Your task to perform on an android device: find photos in the google photos app Image 0: 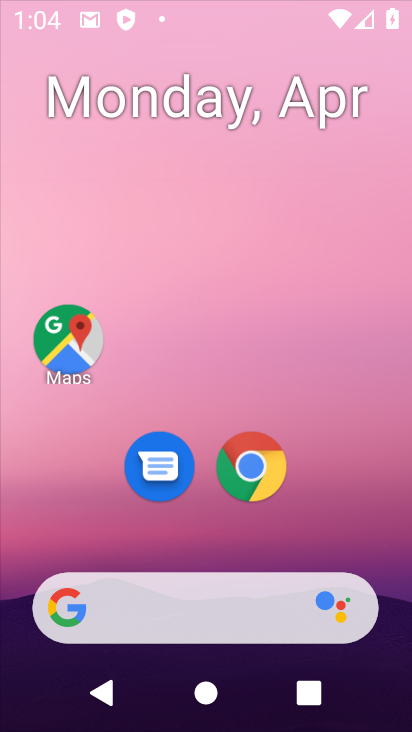
Step 0: click (267, 40)
Your task to perform on an android device: find photos in the google photos app Image 1: 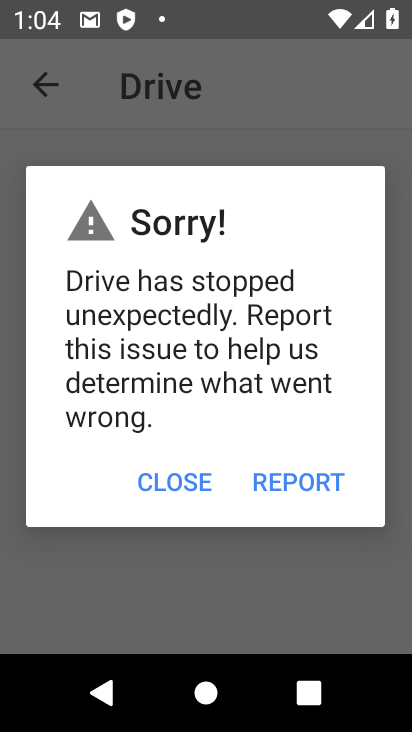
Step 1: press back button
Your task to perform on an android device: find photos in the google photos app Image 2: 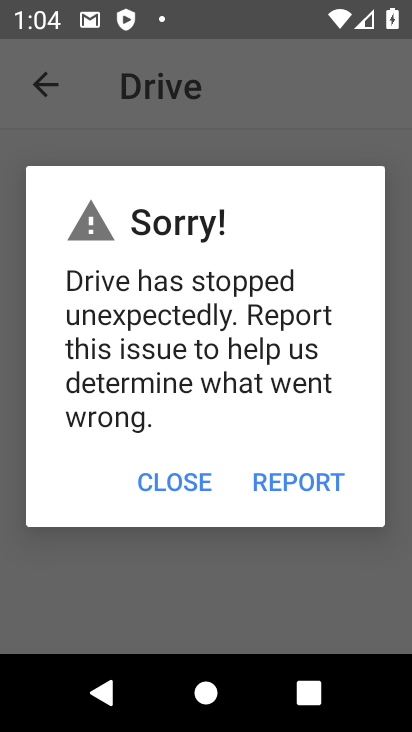
Step 2: press back button
Your task to perform on an android device: find photos in the google photos app Image 3: 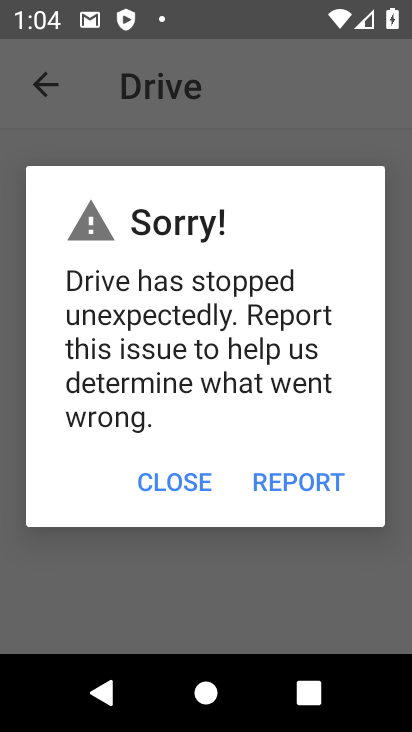
Step 3: press back button
Your task to perform on an android device: find photos in the google photos app Image 4: 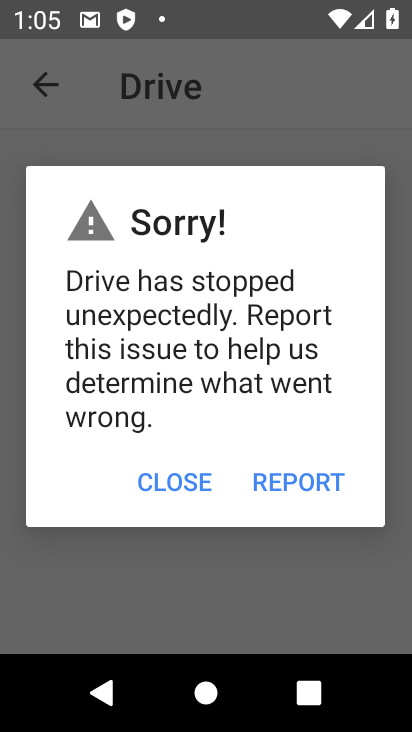
Step 4: press home button
Your task to perform on an android device: find photos in the google photos app Image 5: 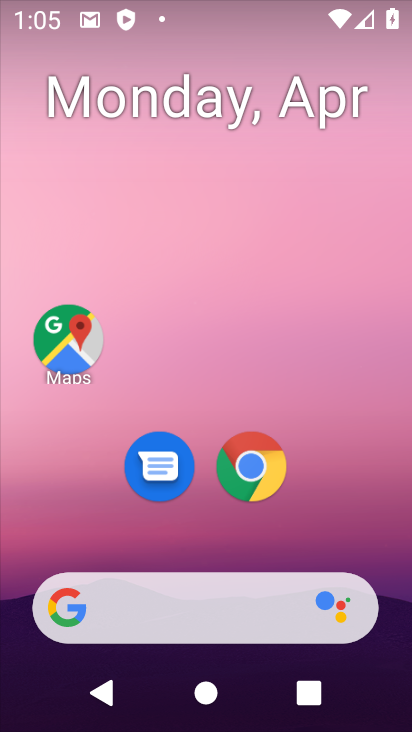
Step 5: drag from (148, 517) to (225, 19)
Your task to perform on an android device: find photos in the google photos app Image 6: 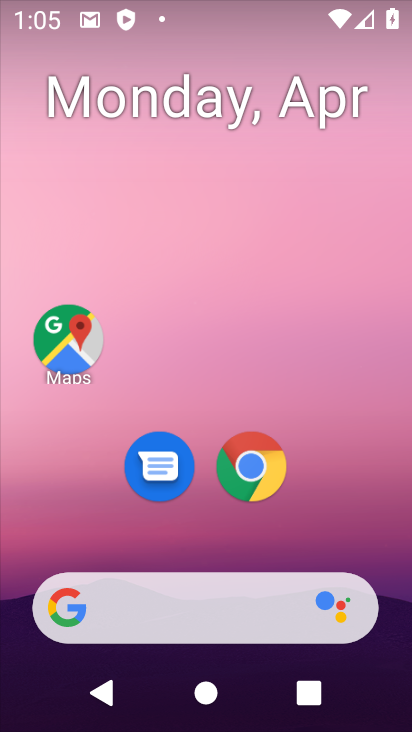
Step 6: drag from (182, 575) to (248, 10)
Your task to perform on an android device: find photos in the google photos app Image 7: 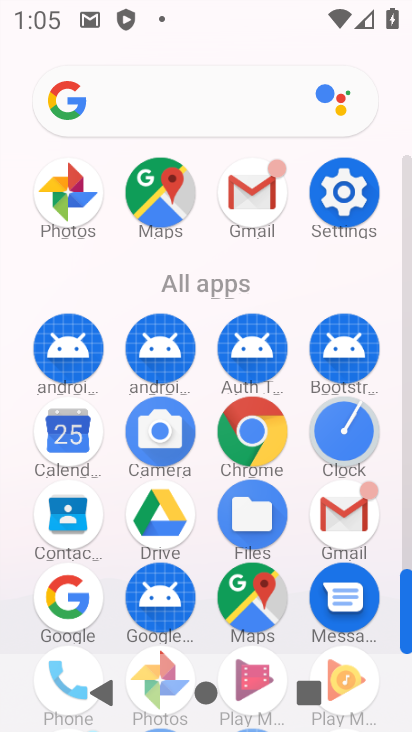
Step 7: drag from (170, 639) to (245, 247)
Your task to perform on an android device: find photos in the google photos app Image 8: 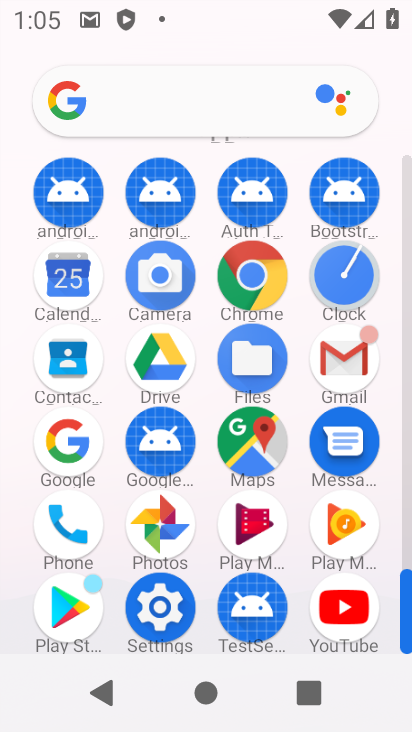
Step 8: click (171, 533)
Your task to perform on an android device: find photos in the google photos app Image 9: 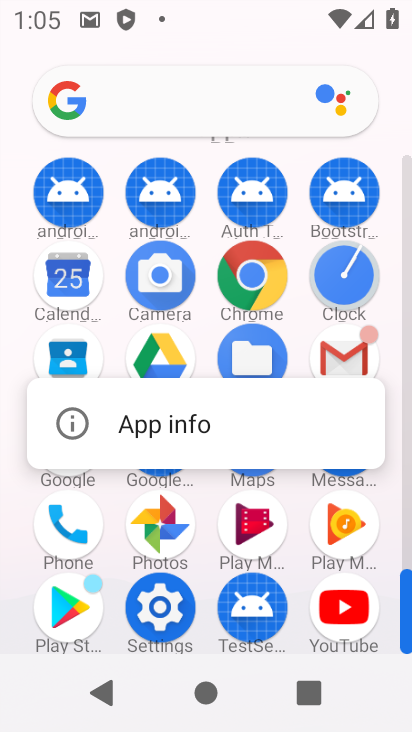
Step 9: click (156, 517)
Your task to perform on an android device: find photos in the google photos app Image 10: 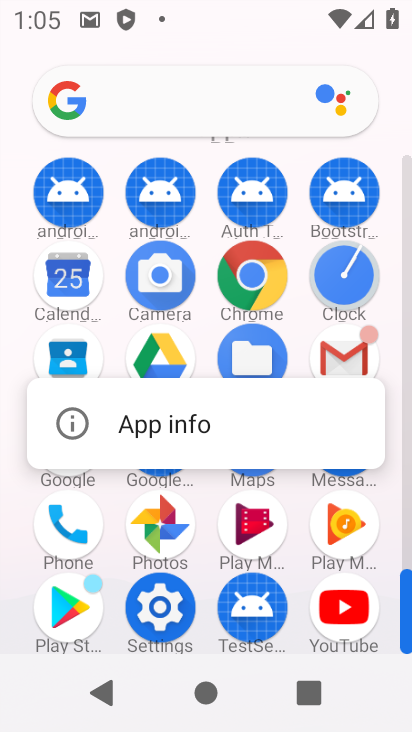
Step 10: click (154, 523)
Your task to perform on an android device: find photos in the google photos app Image 11: 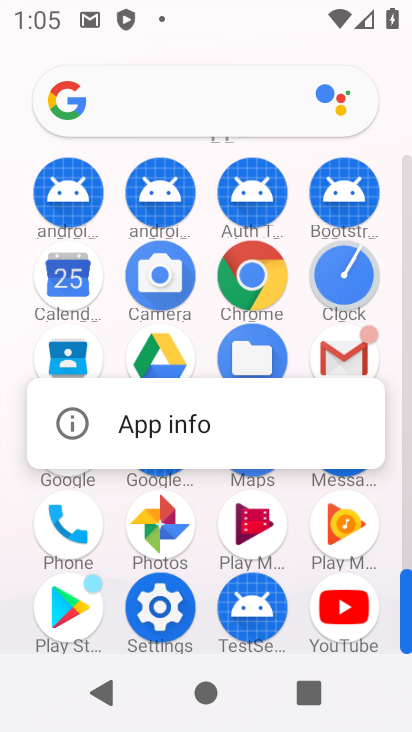
Step 11: click (180, 531)
Your task to perform on an android device: find photos in the google photos app Image 12: 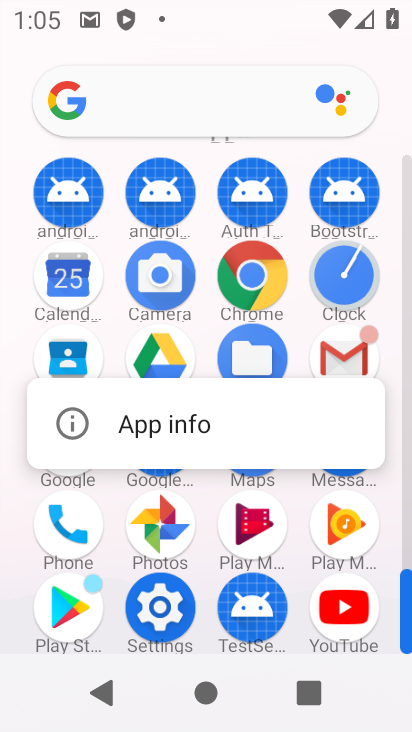
Step 12: click (171, 537)
Your task to perform on an android device: find photos in the google photos app Image 13: 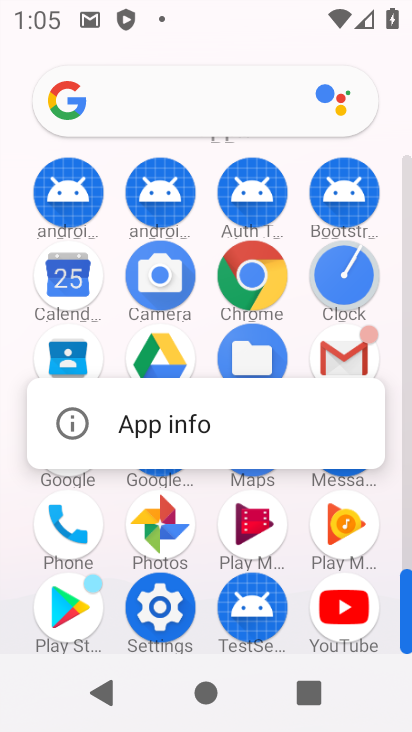
Step 13: click (159, 517)
Your task to perform on an android device: find photos in the google photos app Image 14: 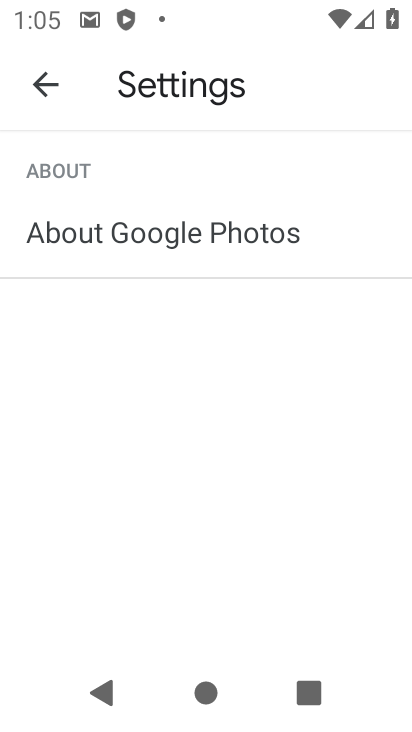
Step 14: press back button
Your task to perform on an android device: find photos in the google photos app Image 15: 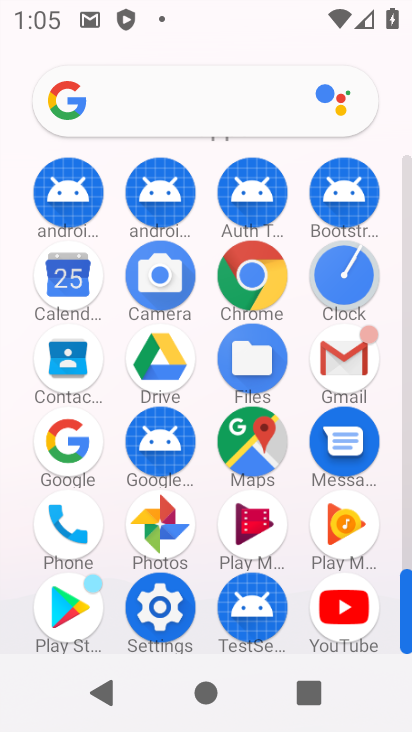
Step 15: click (171, 528)
Your task to perform on an android device: find photos in the google photos app Image 16: 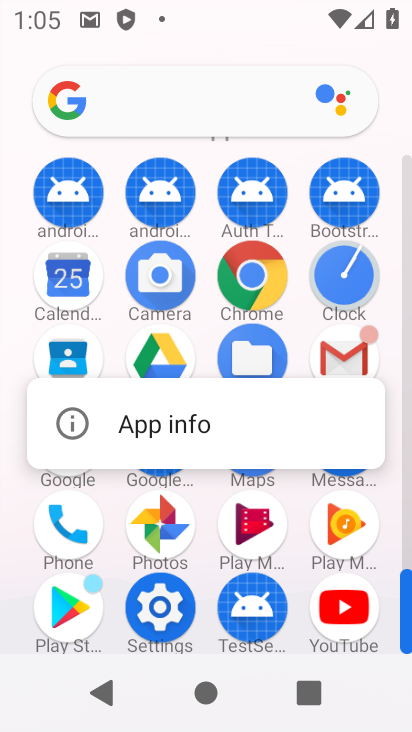
Step 16: click (187, 536)
Your task to perform on an android device: find photos in the google photos app Image 17: 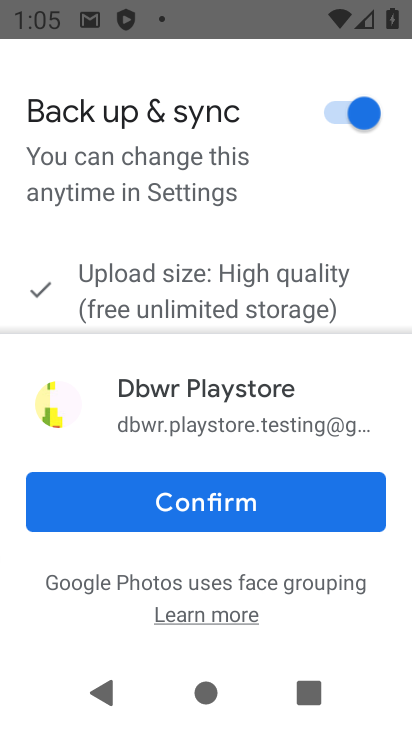
Step 17: click (254, 508)
Your task to perform on an android device: find photos in the google photos app Image 18: 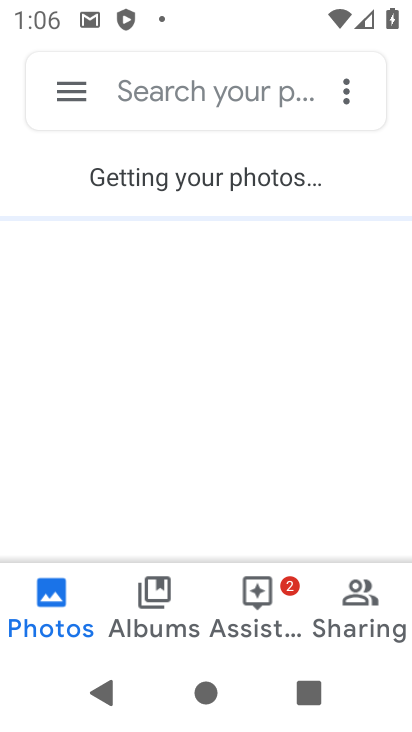
Step 18: drag from (186, 277) to (181, 453)
Your task to perform on an android device: find photos in the google photos app Image 19: 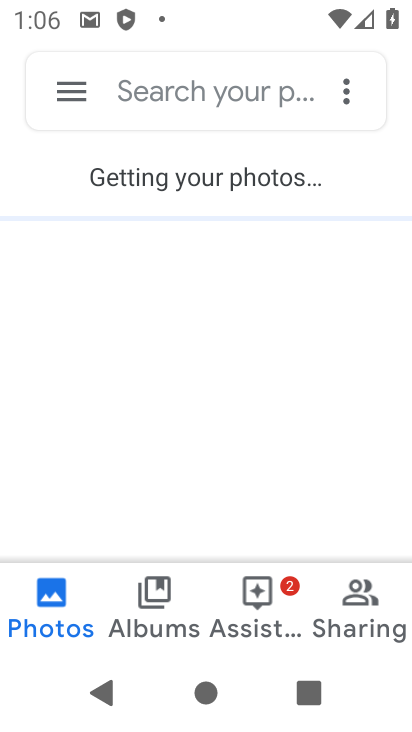
Step 19: click (161, 442)
Your task to perform on an android device: find photos in the google photos app Image 20: 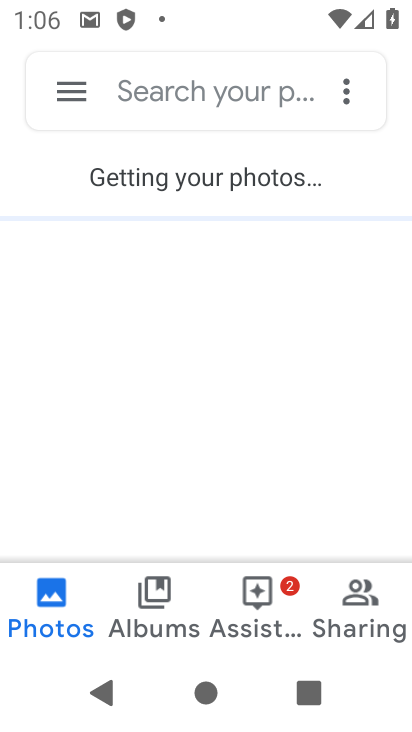
Step 20: click (161, 442)
Your task to perform on an android device: find photos in the google photos app Image 21: 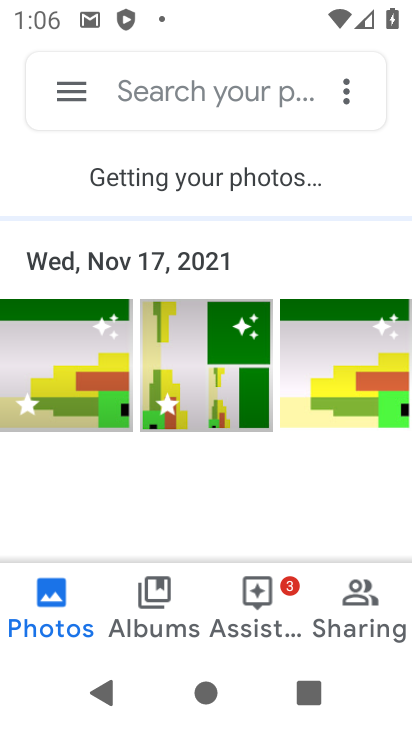
Step 21: task complete